Your task to perform on an android device: Open Maps and search for coffee Image 0: 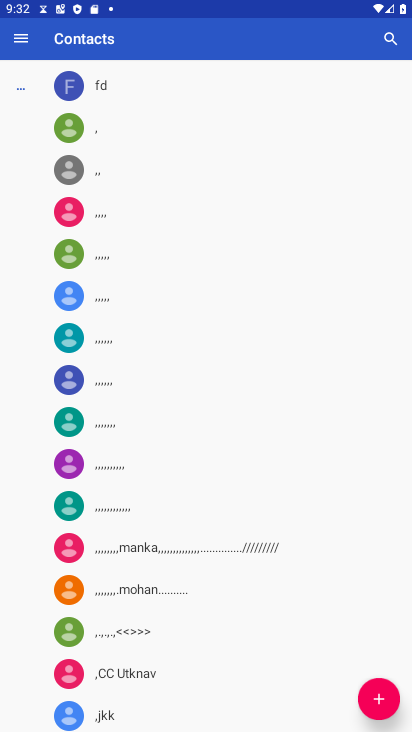
Step 0: press back button
Your task to perform on an android device: Open Maps and search for coffee Image 1: 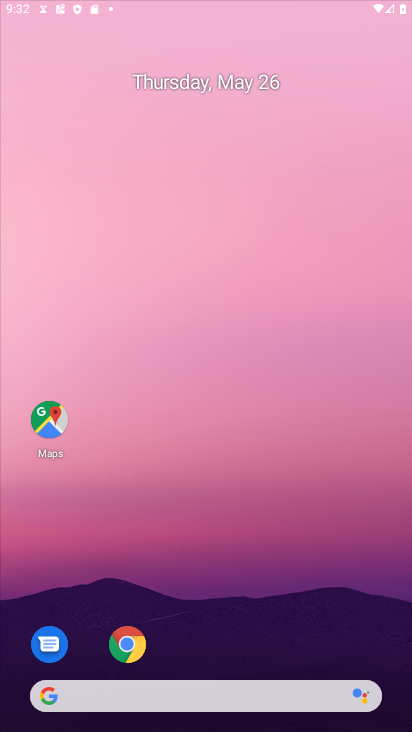
Step 1: press back button
Your task to perform on an android device: Open Maps and search for coffee Image 2: 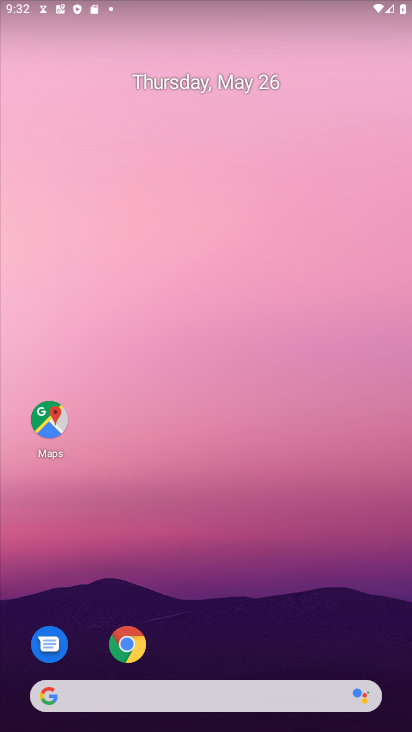
Step 2: click (51, 402)
Your task to perform on an android device: Open Maps and search for coffee Image 3: 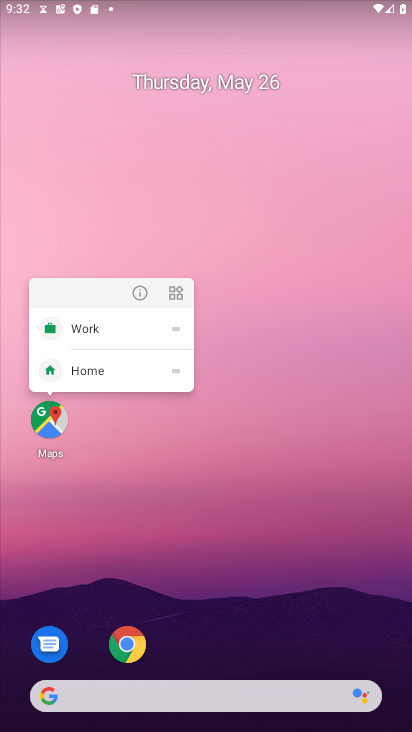
Step 3: click (57, 421)
Your task to perform on an android device: Open Maps and search for coffee Image 4: 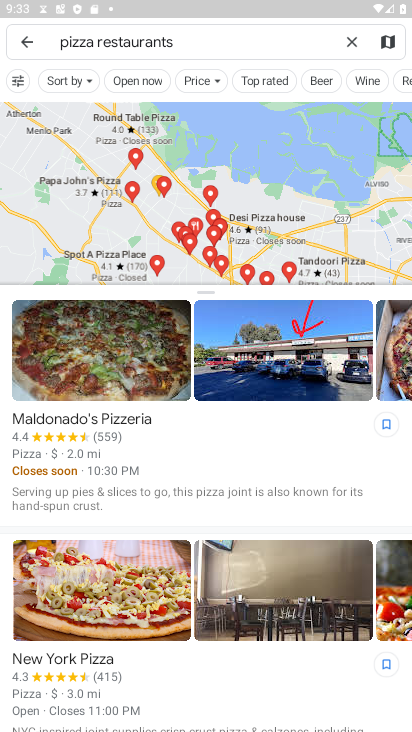
Step 4: click (343, 35)
Your task to perform on an android device: Open Maps and search for coffee Image 5: 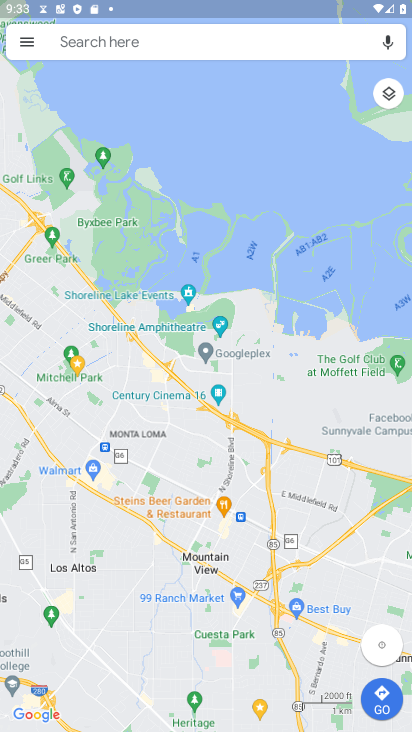
Step 5: click (138, 44)
Your task to perform on an android device: Open Maps and search for coffee Image 6: 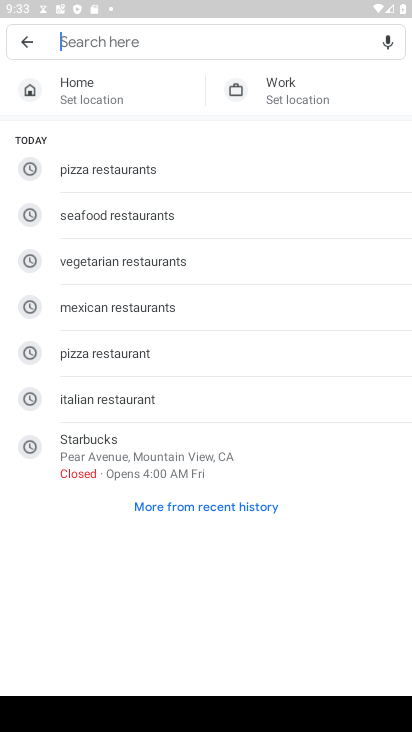
Step 6: click (102, 42)
Your task to perform on an android device: Open Maps and search for coffee Image 7: 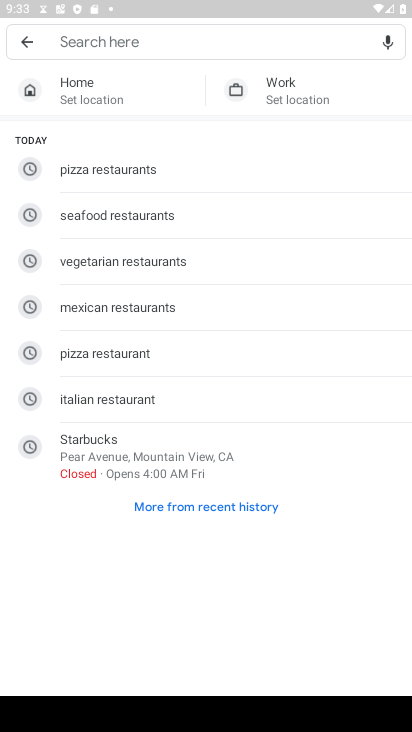
Step 7: type "coffee"
Your task to perform on an android device: Open Maps and search for coffee Image 8: 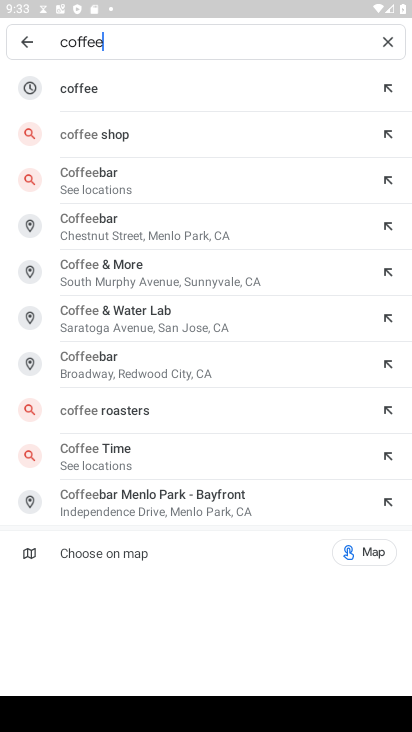
Step 8: click (123, 78)
Your task to perform on an android device: Open Maps and search for coffee Image 9: 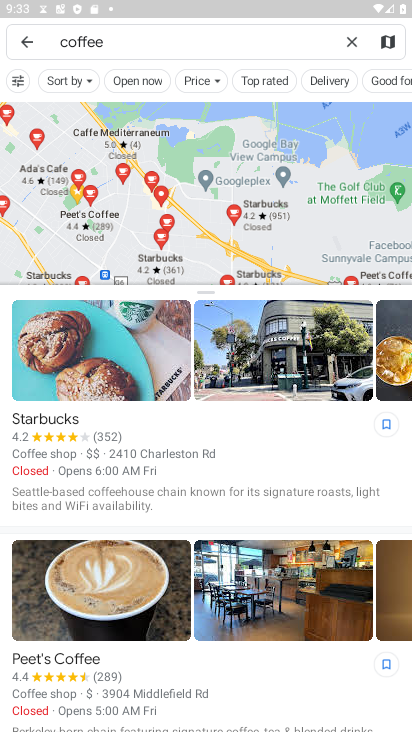
Step 9: task complete